Your task to perform on an android device: open a bookmark in the chrome app Image 0: 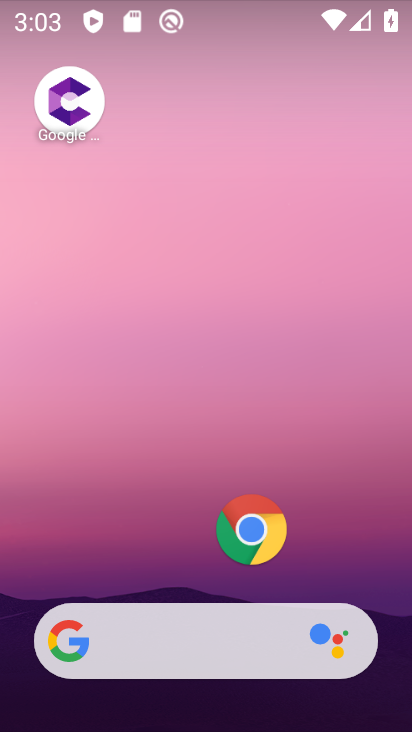
Step 0: drag from (132, 582) to (160, 142)
Your task to perform on an android device: open a bookmark in the chrome app Image 1: 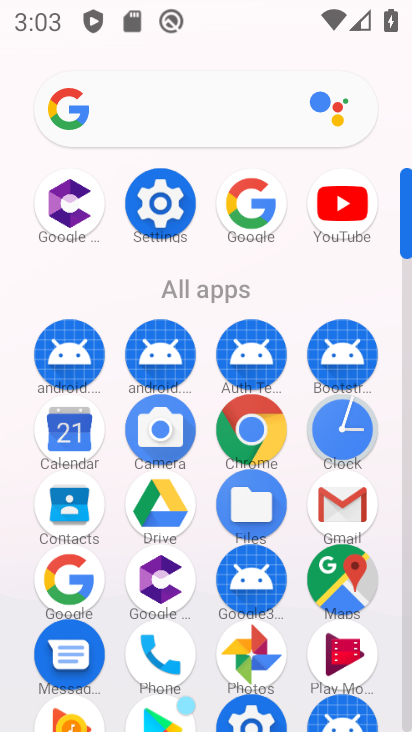
Step 1: click (255, 428)
Your task to perform on an android device: open a bookmark in the chrome app Image 2: 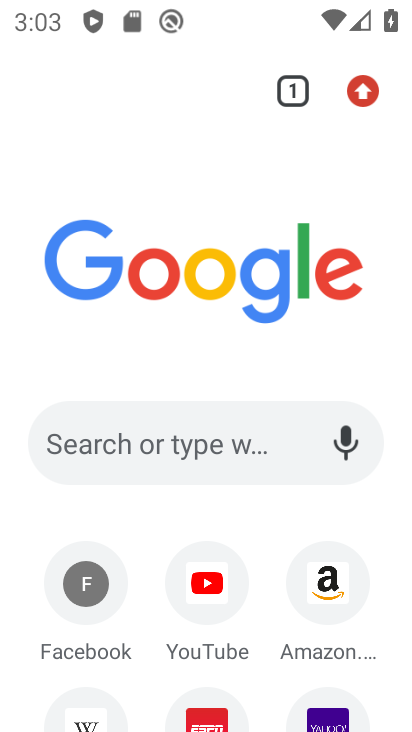
Step 2: click (362, 89)
Your task to perform on an android device: open a bookmark in the chrome app Image 3: 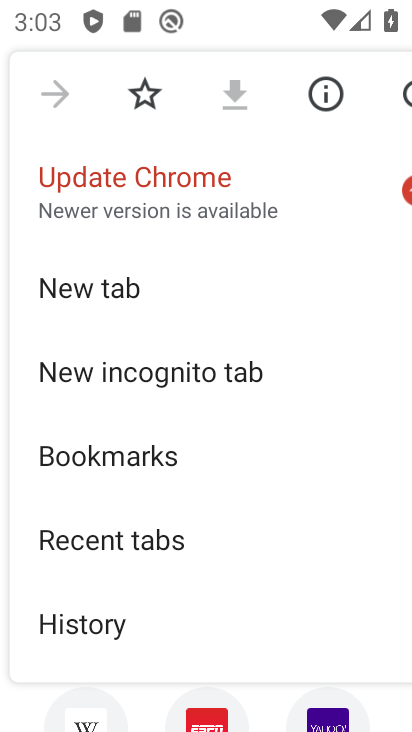
Step 3: drag from (167, 440) to (187, 204)
Your task to perform on an android device: open a bookmark in the chrome app Image 4: 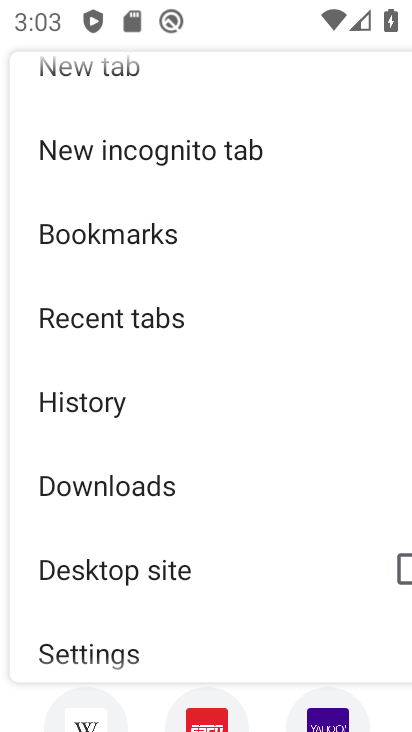
Step 4: click (168, 232)
Your task to perform on an android device: open a bookmark in the chrome app Image 5: 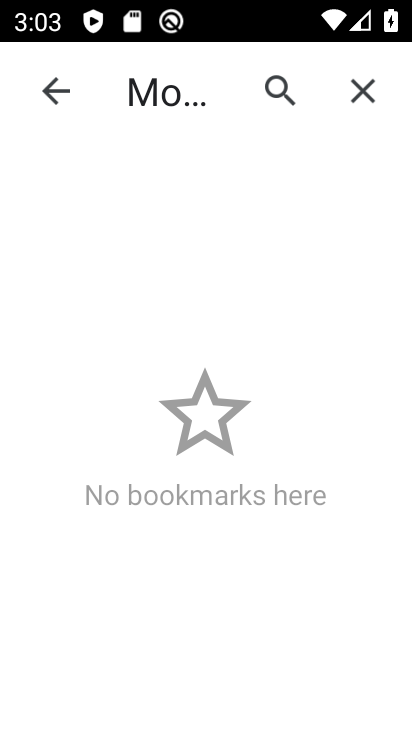
Step 5: task complete